Your task to perform on an android device: add a contact in the contacts app Image 0: 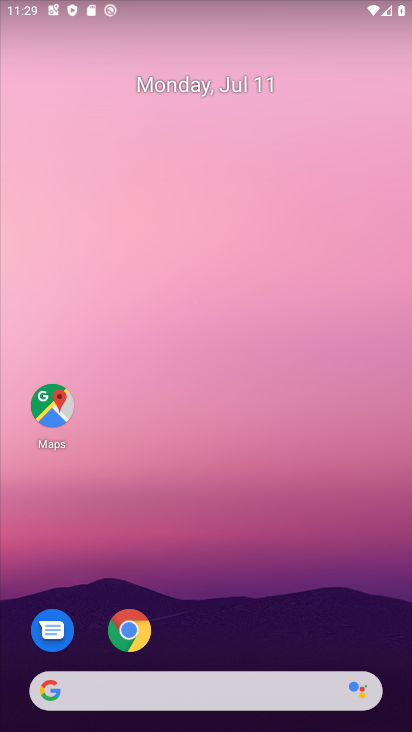
Step 0: drag from (237, 626) to (212, 1)
Your task to perform on an android device: add a contact in the contacts app Image 1: 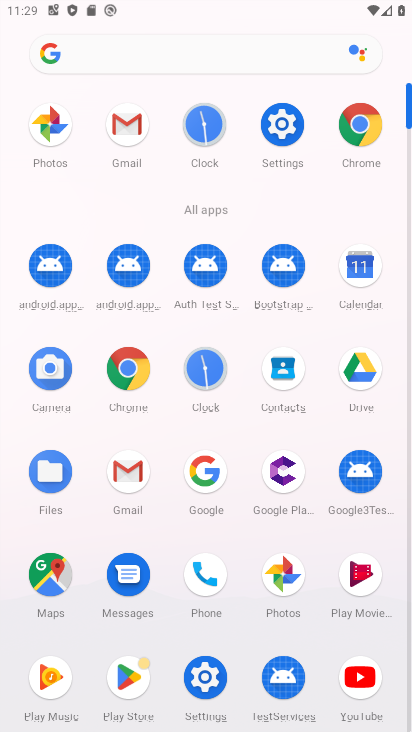
Step 1: click (282, 378)
Your task to perform on an android device: add a contact in the contacts app Image 2: 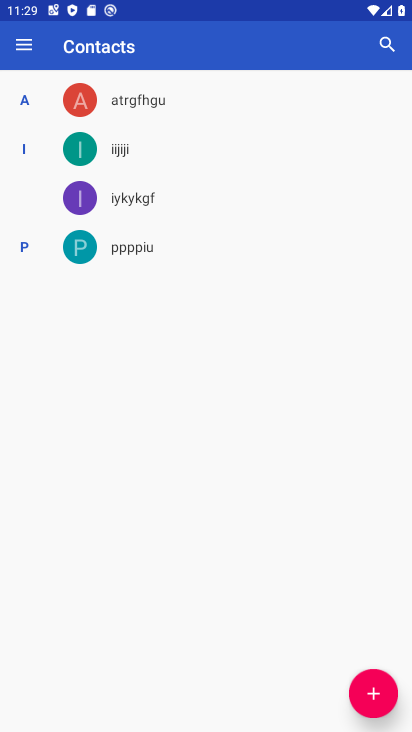
Step 2: click (361, 703)
Your task to perform on an android device: add a contact in the contacts app Image 3: 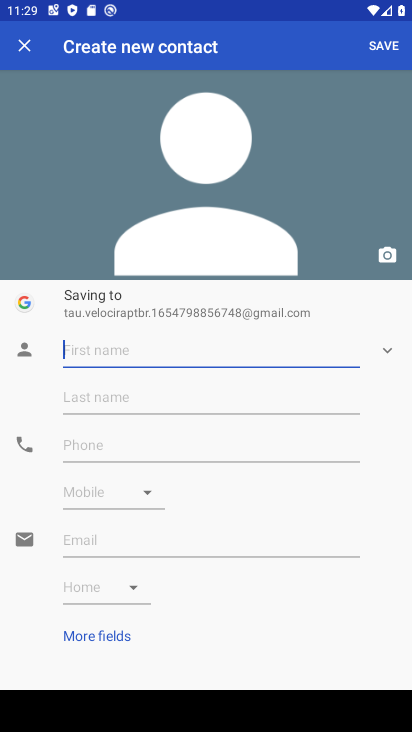
Step 3: type "jhgv"
Your task to perform on an android device: add a contact in the contacts app Image 4: 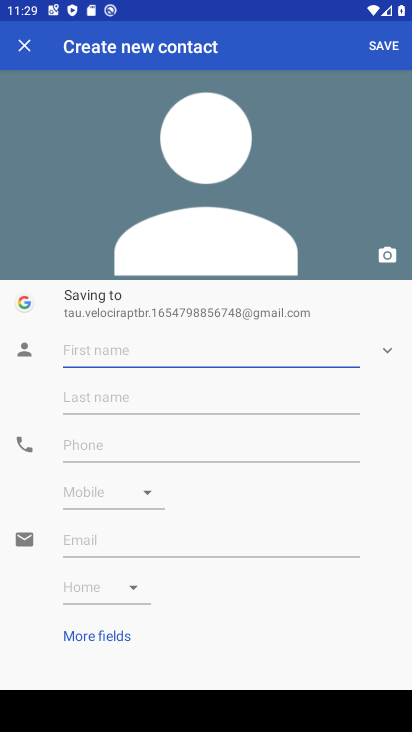
Step 4: click (113, 460)
Your task to perform on an android device: add a contact in the contacts app Image 5: 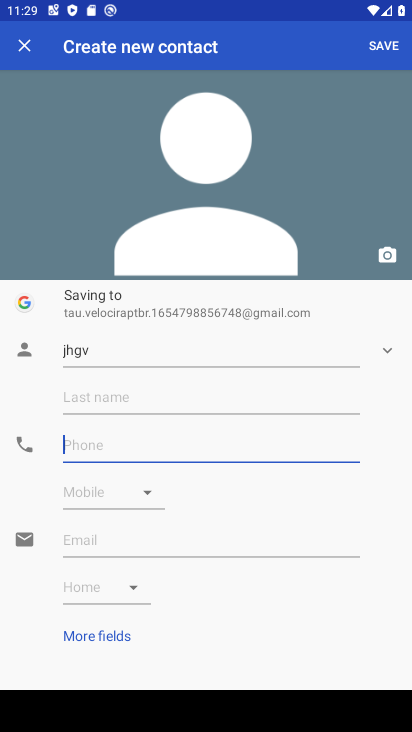
Step 5: type "8768768768"
Your task to perform on an android device: add a contact in the contacts app Image 6: 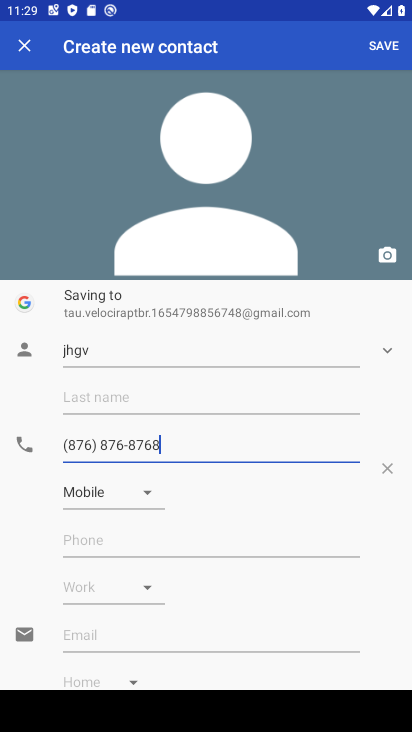
Step 6: type ""
Your task to perform on an android device: add a contact in the contacts app Image 7: 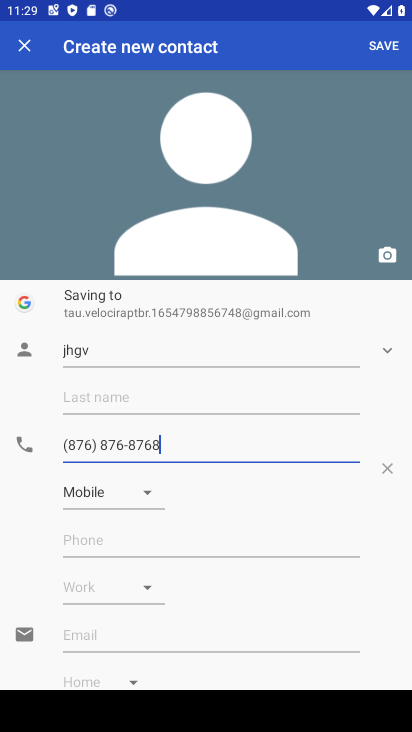
Step 7: click (368, 49)
Your task to perform on an android device: add a contact in the contacts app Image 8: 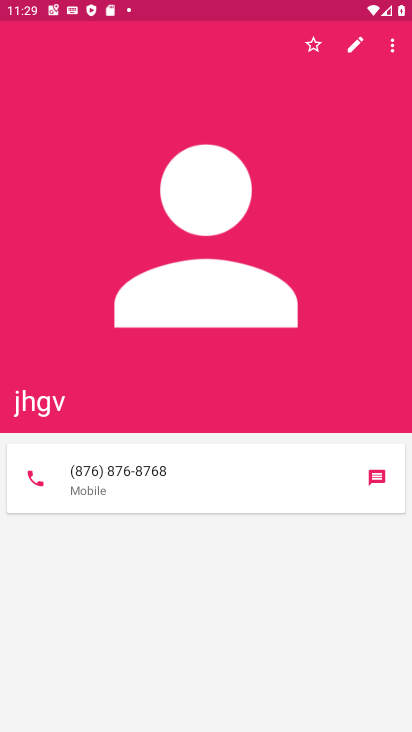
Step 8: task complete